Your task to perform on an android device: Open privacy settings Image 0: 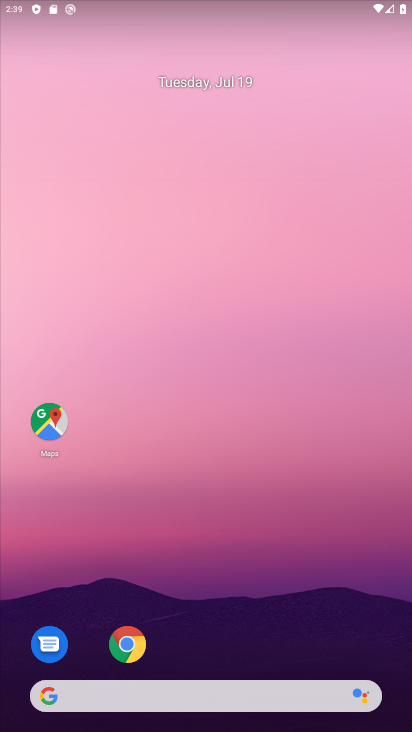
Step 0: drag from (266, 649) to (243, 28)
Your task to perform on an android device: Open privacy settings Image 1: 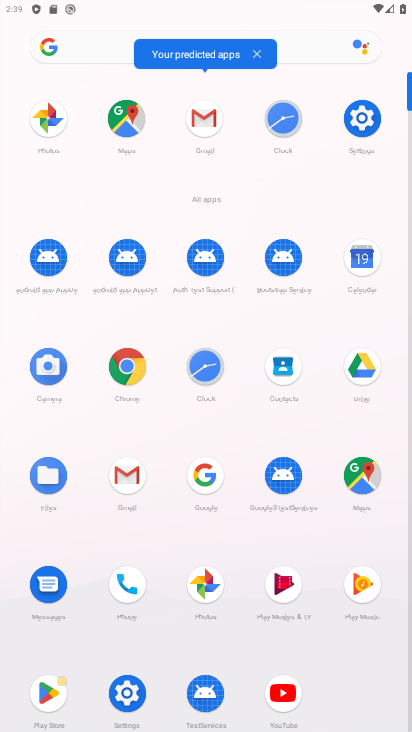
Step 1: click (369, 120)
Your task to perform on an android device: Open privacy settings Image 2: 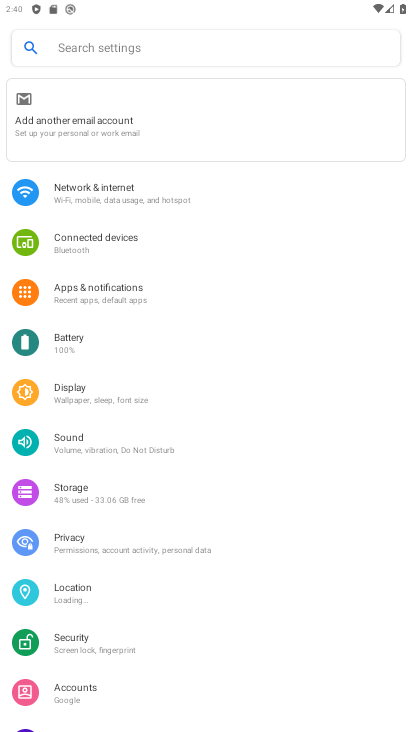
Step 2: click (148, 536)
Your task to perform on an android device: Open privacy settings Image 3: 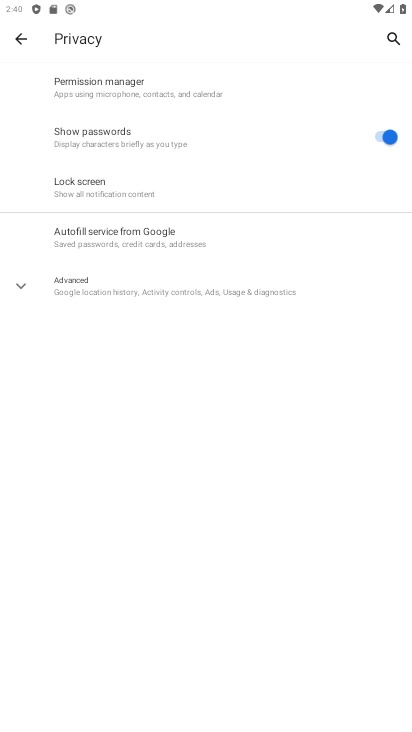
Step 3: task complete